Your task to perform on an android device: turn on notifications settings in the gmail app Image 0: 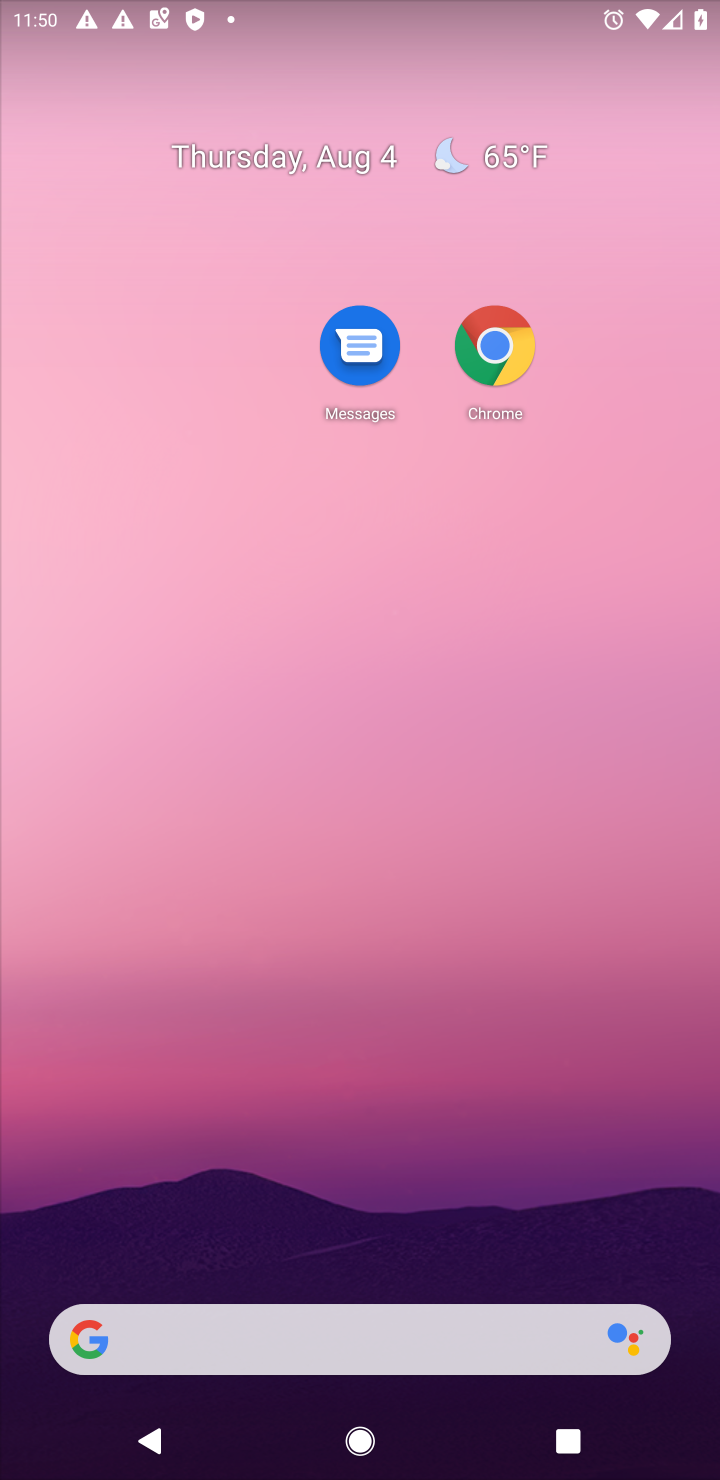
Step 0: drag from (336, 1168) to (429, 131)
Your task to perform on an android device: turn on notifications settings in the gmail app Image 1: 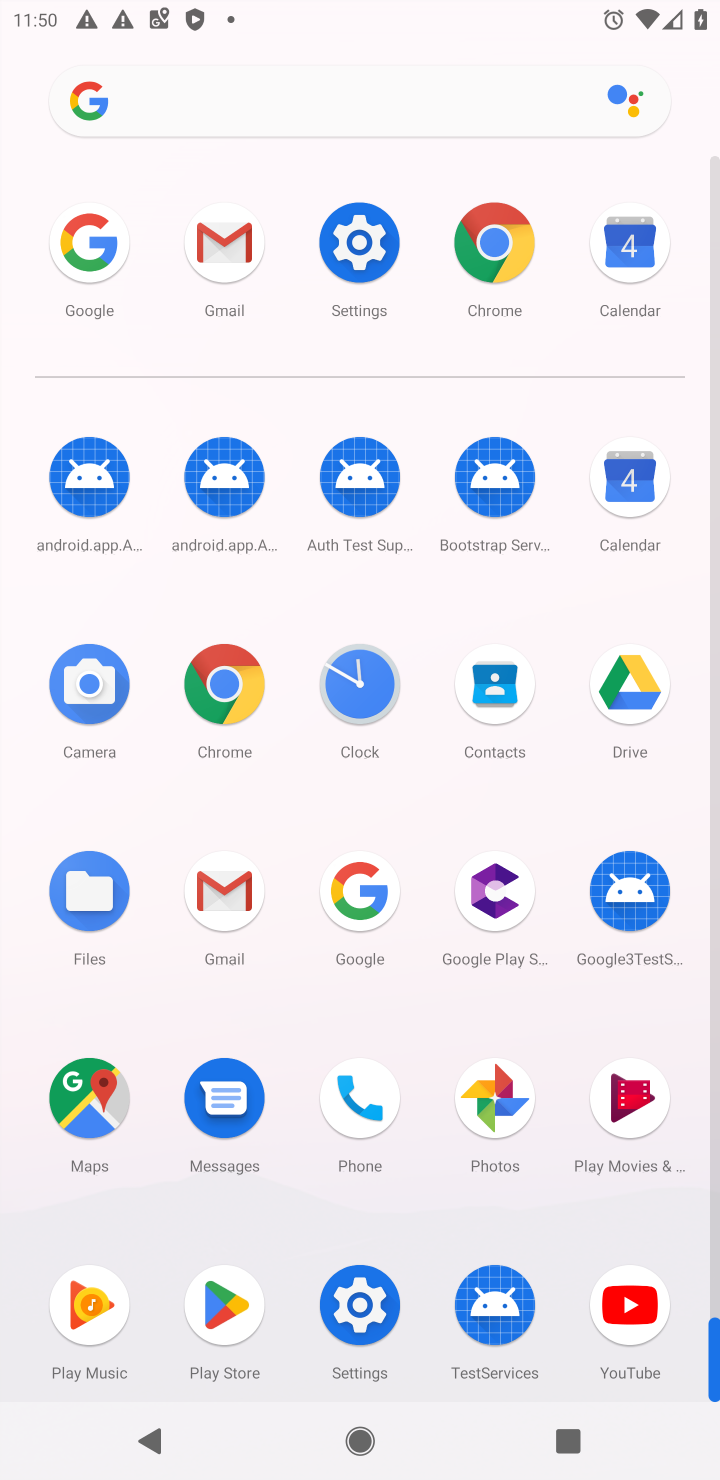
Step 1: click (230, 251)
Your task to perform on an android device: turn on notifications settings in the gmail app Image 2: 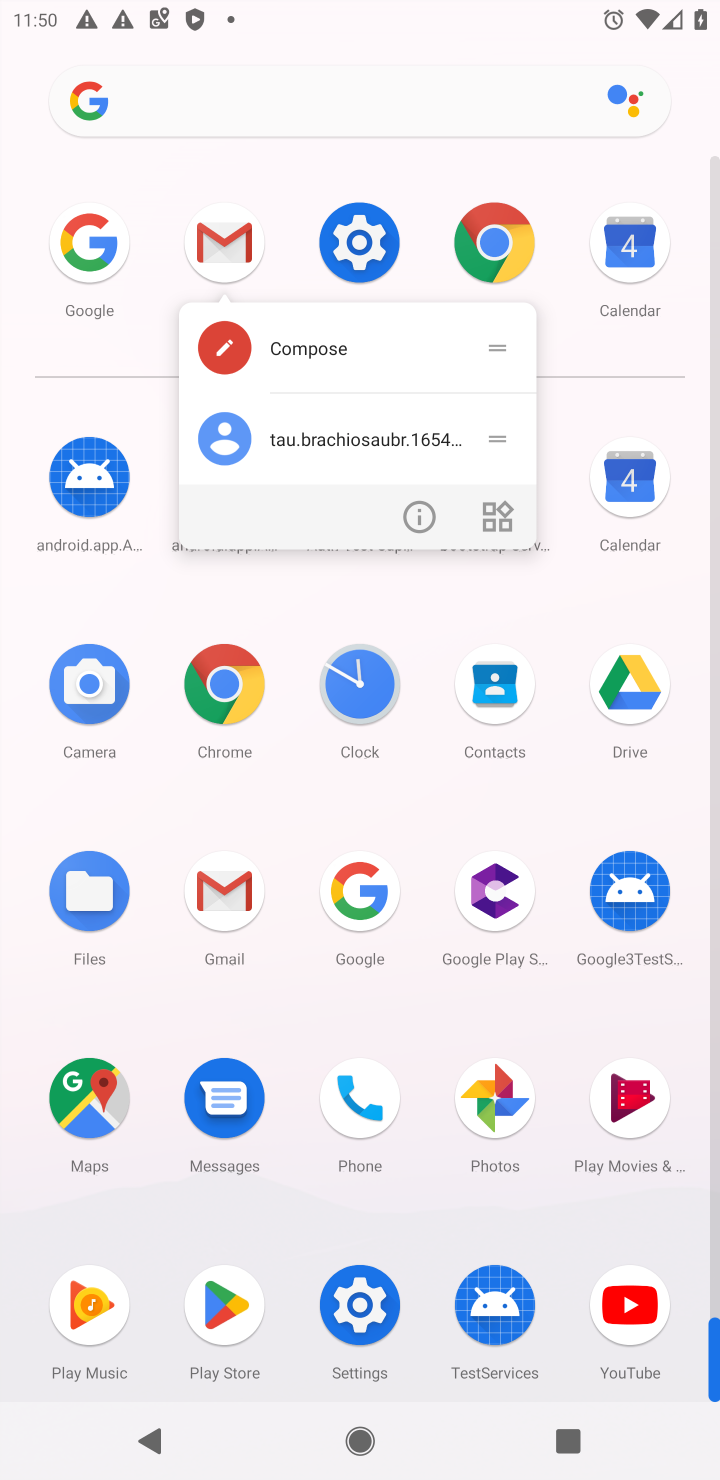
Step 2: click (230, 251)
Your task to perform on an android device: turn on notifications settings in the gmail app Image 3: 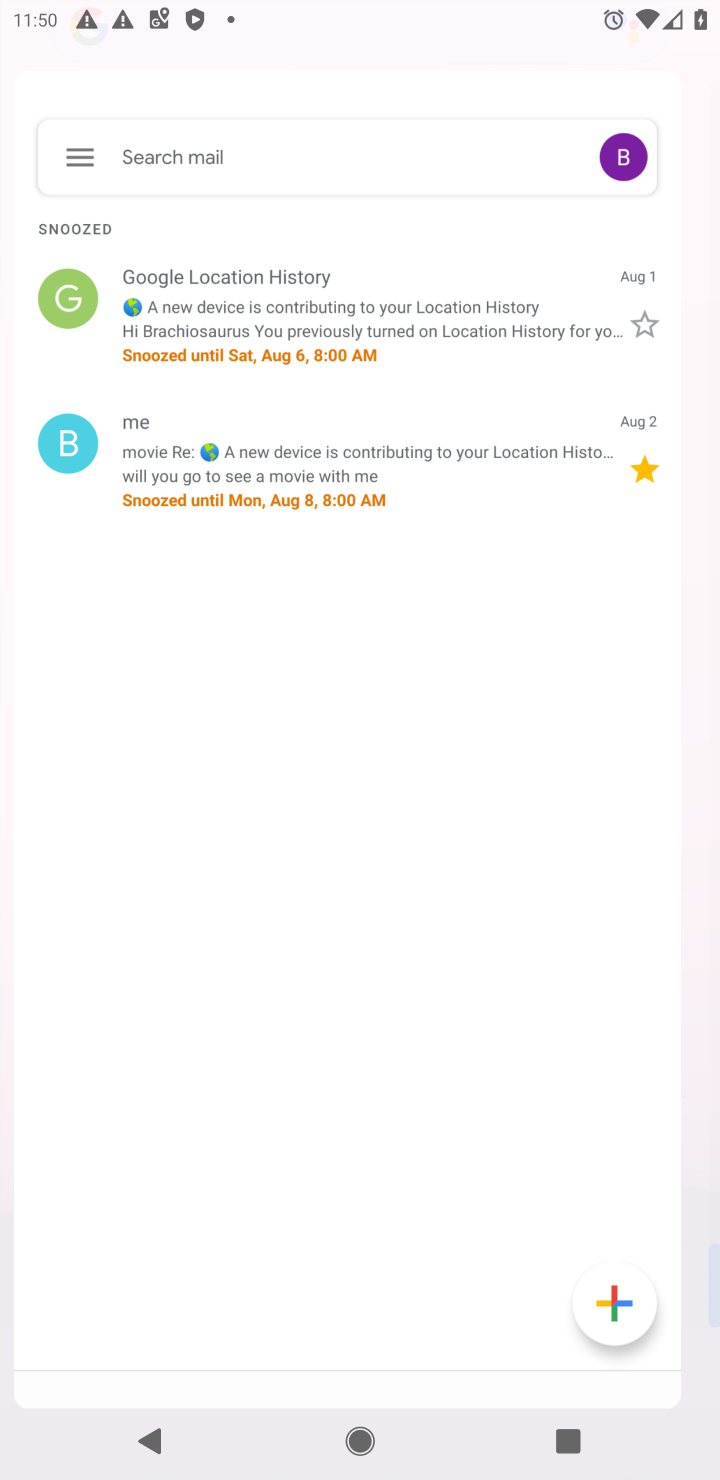
Step 3: click (230, 251)
Your task to perform on an android device: turn on notifications settings in the gmail app Image 4: 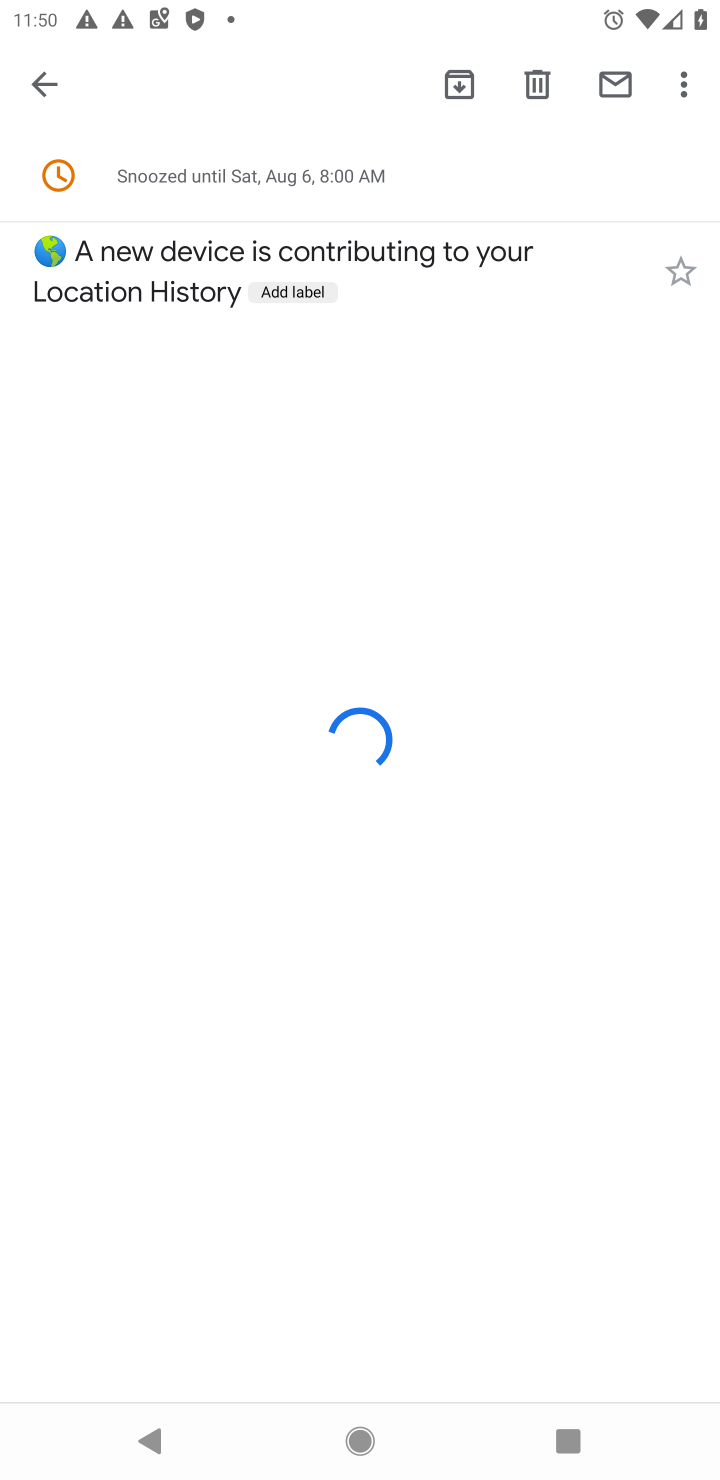
Step 4: click (32, 96)
Your task to perform on an android device: turn on notifications settings in the gmail app Image 5: 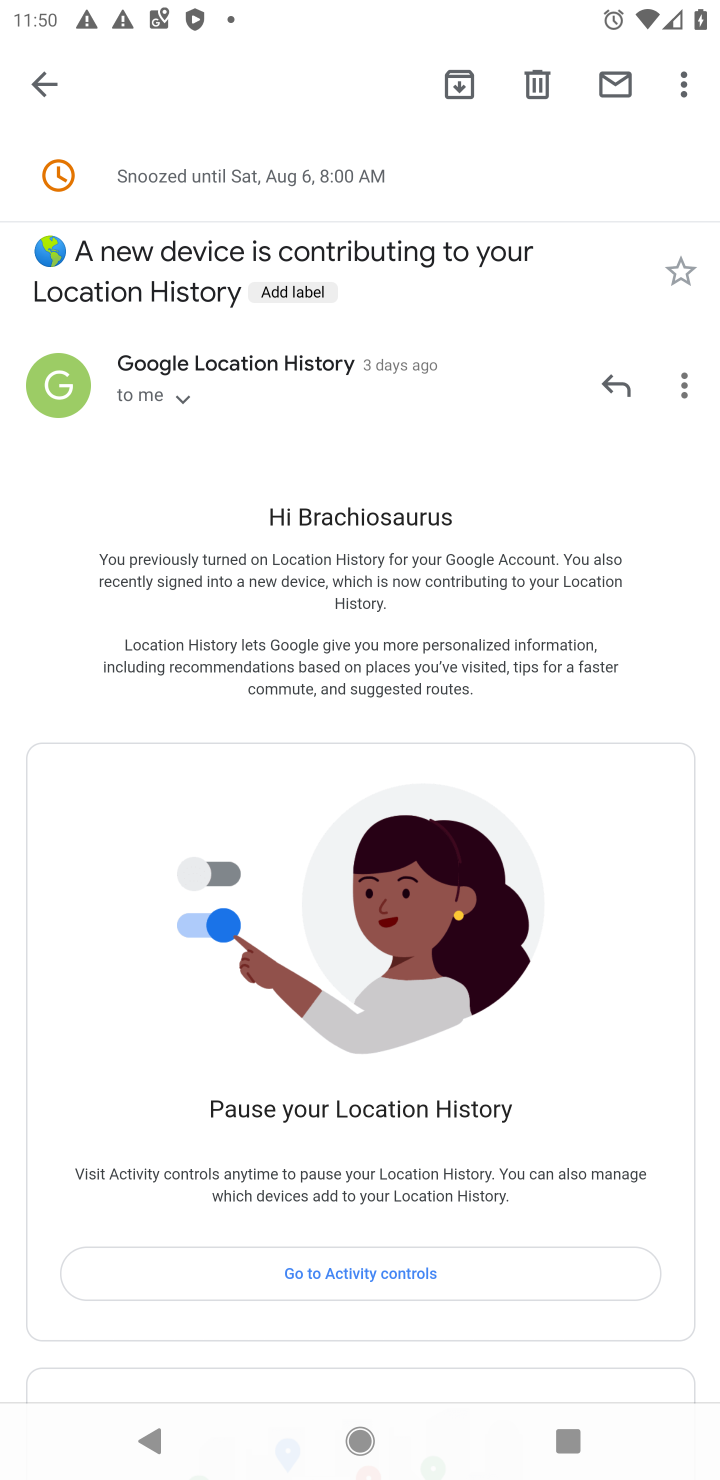
Step 5: click (44, 93)
Your task to perform on an android device: turn on notifications settings in the gmail app Image 6: 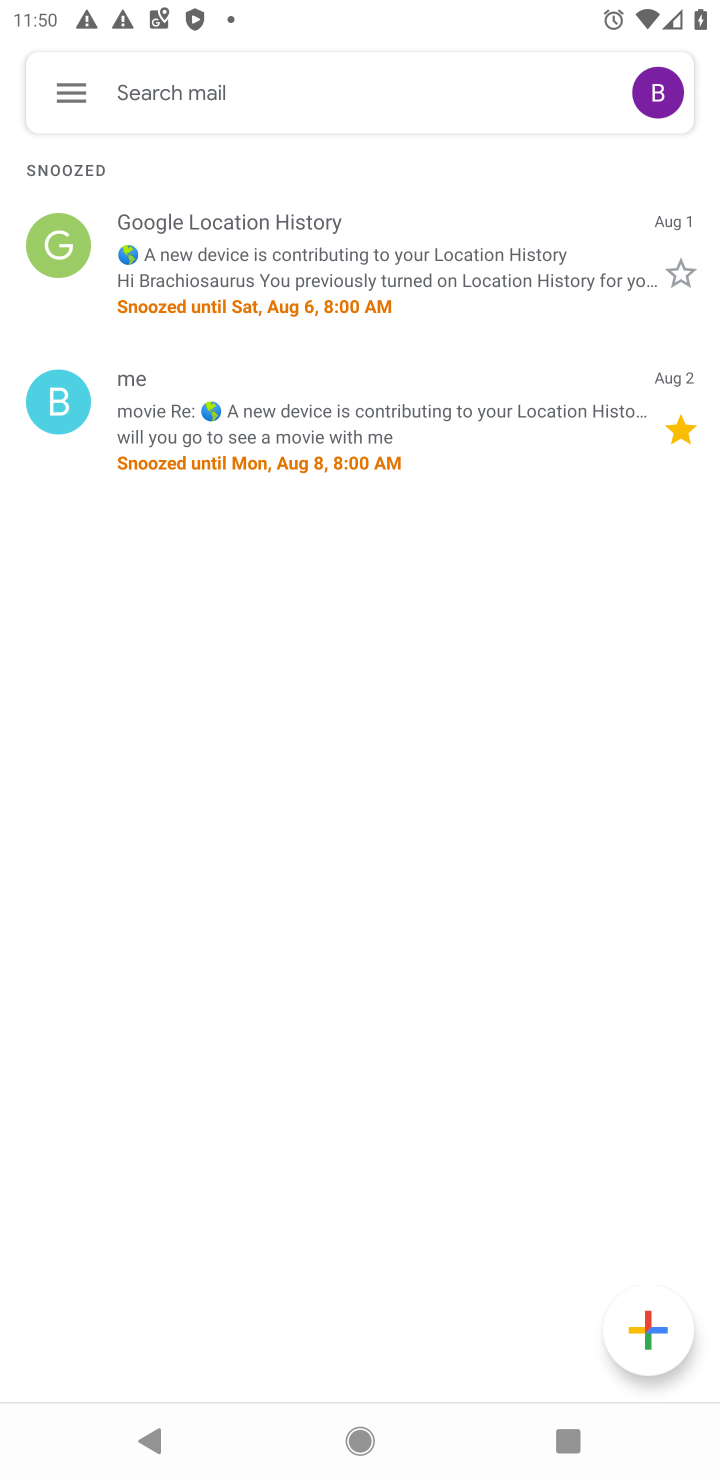
Step 6: click (43, 94)
Your task to perform on an android device: turn on notifications settings in the gmail app Image 7: 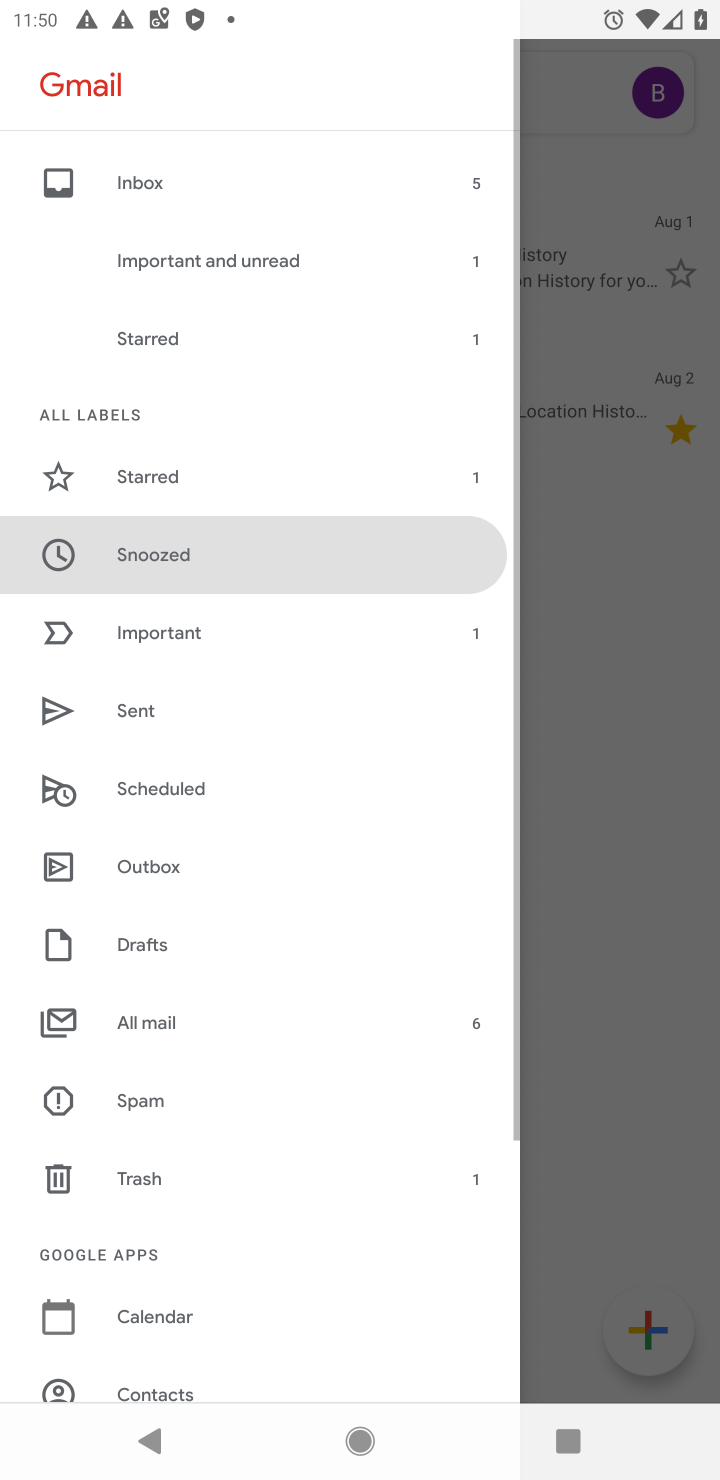
Step 7: drag from (147, 1136) to (231, 408)
Your task to perform on an android device: turn on notifications settings in the gmail app Image 8: 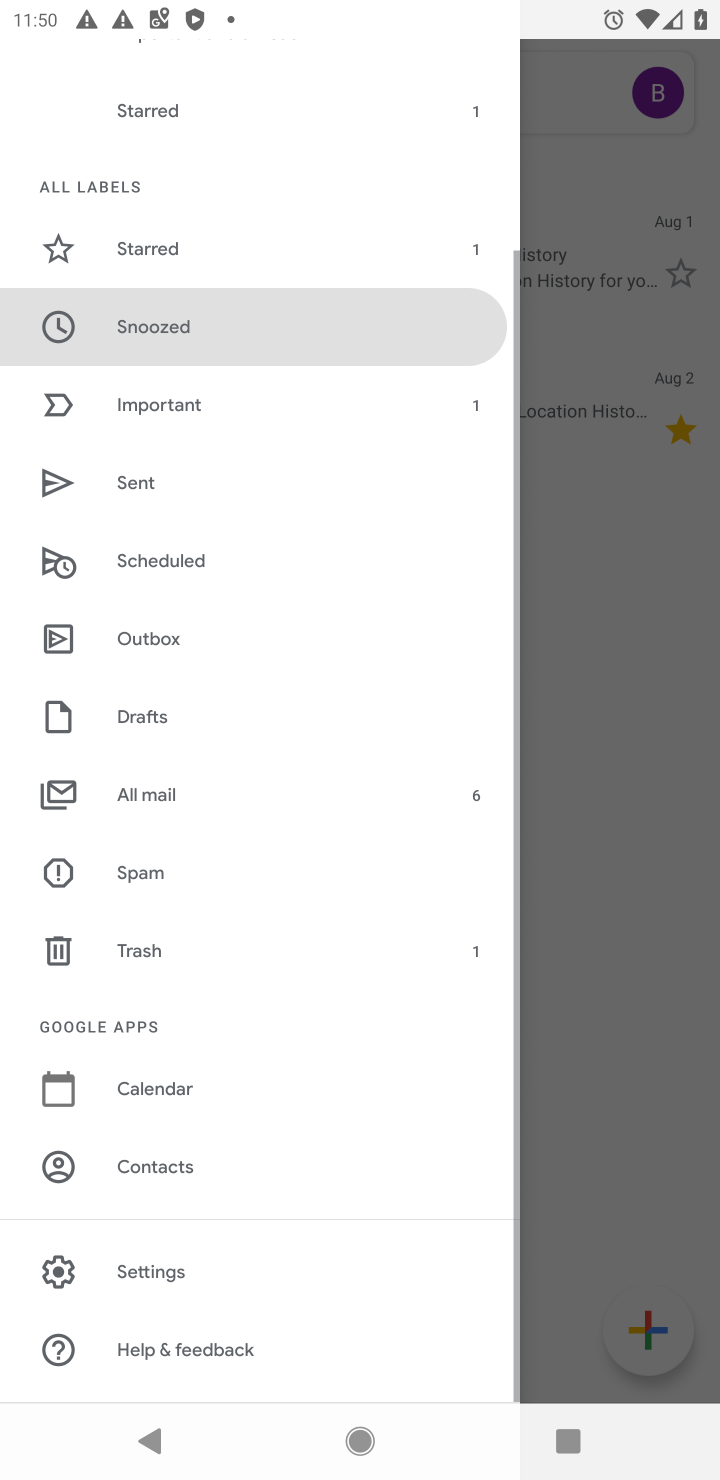
Step 8: click (130, 1294)
Your task to perform on an android device: turn on notifications settings in the gmail app Image 9: 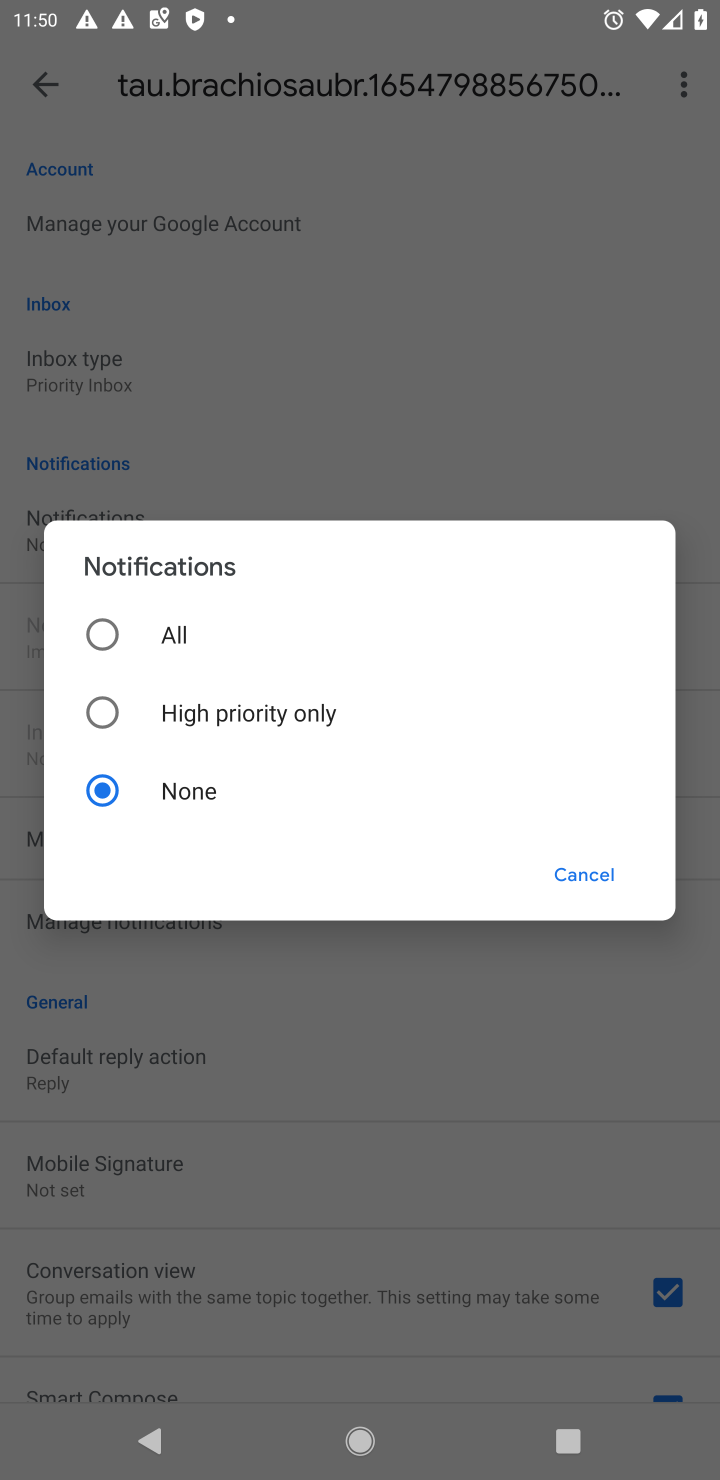
Step 9: click (261, 698)
Your task to perform on an android device: turn on notifications settings in the gmail app Image 10: 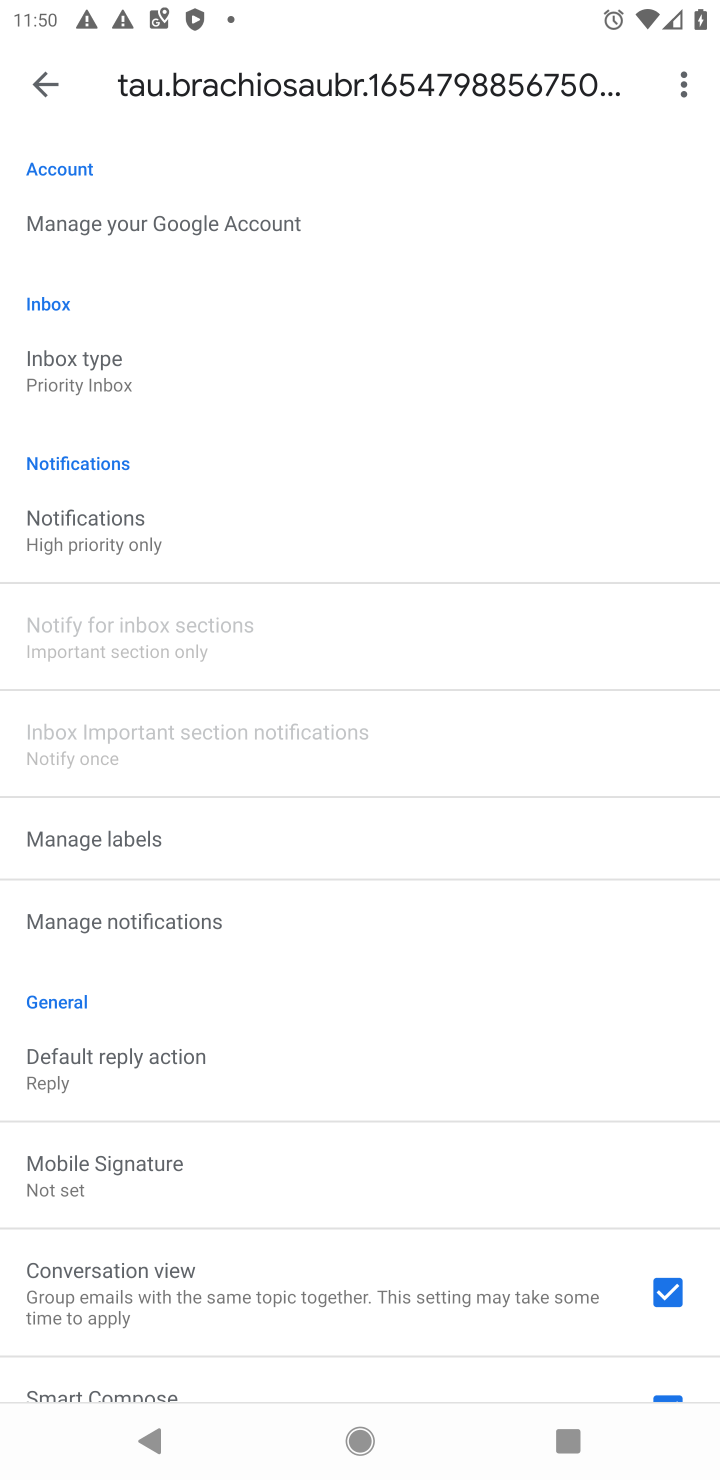
Step 10: task complete